Your task to perform on an android device: Open calendar and show me the fourth week of next month Image 0: 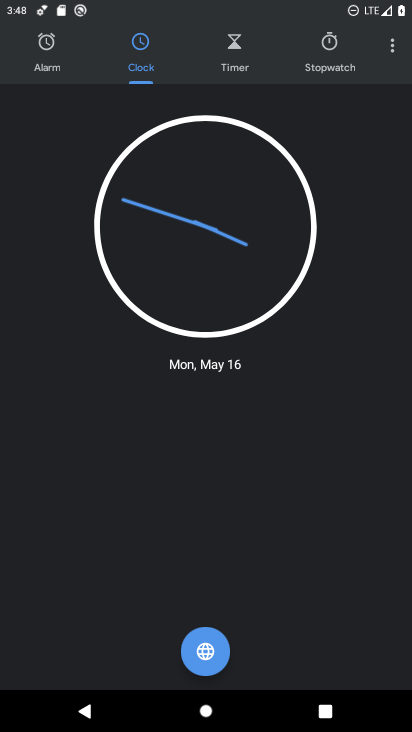
Step 0: press home button
Your task to perform on an android device: Open calendar and show me the fourth week of next month Image 1: 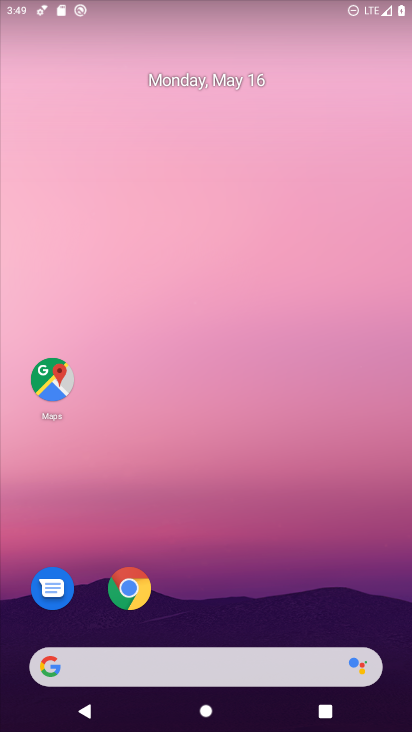
Step 1: drag from (242, 628) to (238, 13)
Your task to perform on an android device: Open calendar and show me the fourth week of next month Image 2: 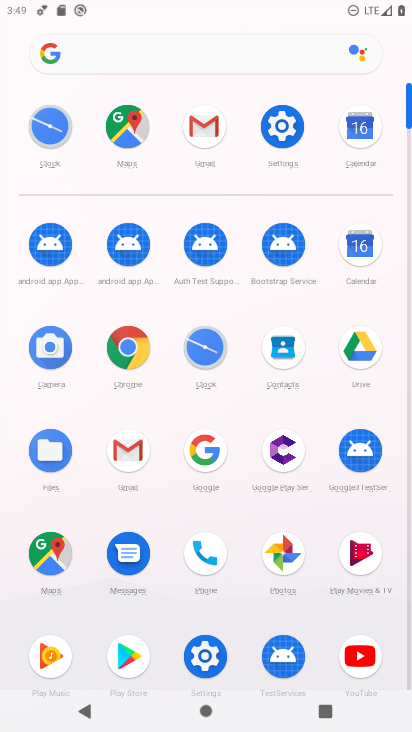
Step 2: click (365, 128)
Your task to perform on an android device: Open calendar and show me the fourth week of next month Image 3: 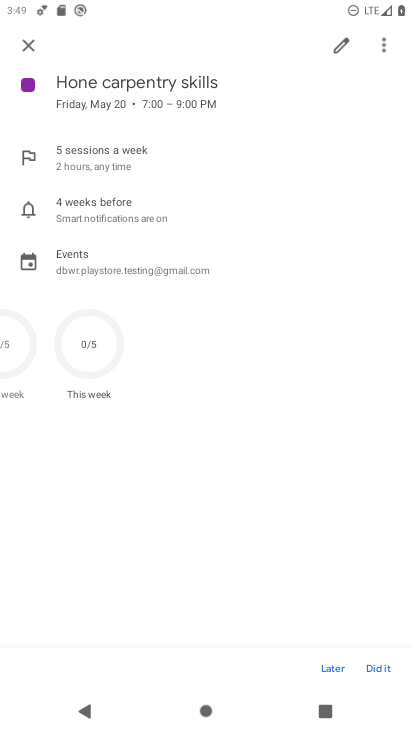
Step 3: click (32, 48)
Your task to perform on an android device: Open calendar and show me the fourth week of next month Image 4: 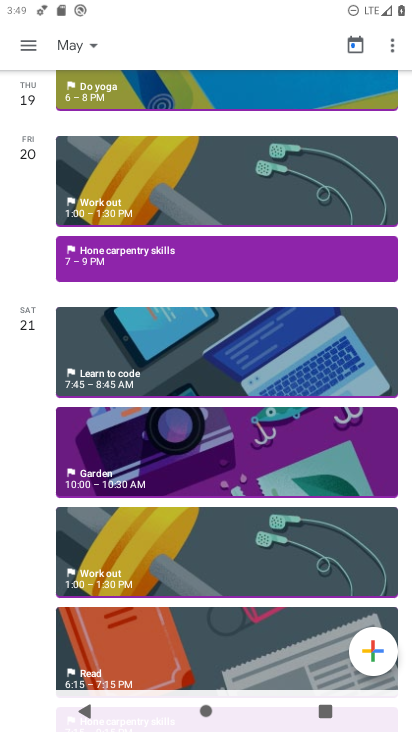
Step 4: click (99, 48)
Your task to perform on an android device: Open calendar and show me the fourth week of next month Image 5: 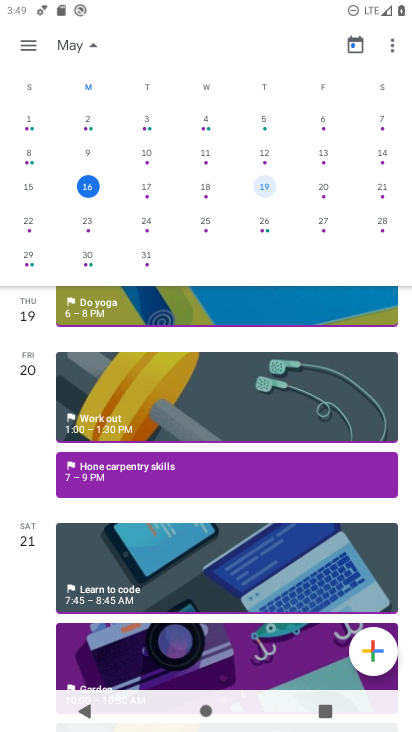
Step 5: drag from (330, 200) to (5, 200)
Your task to perform on an android device: Open calendar and show me the fourth week of next month Image 6: 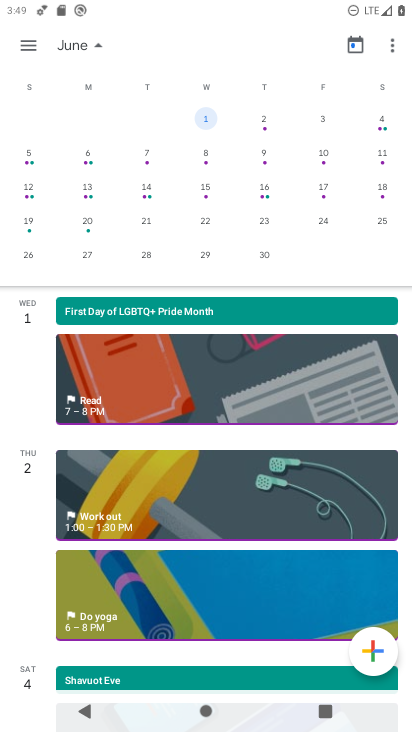
Step 6: click (29, 47)
Your task to perform on an android device: Open calendar and show me the fourth week of next month Image 7: 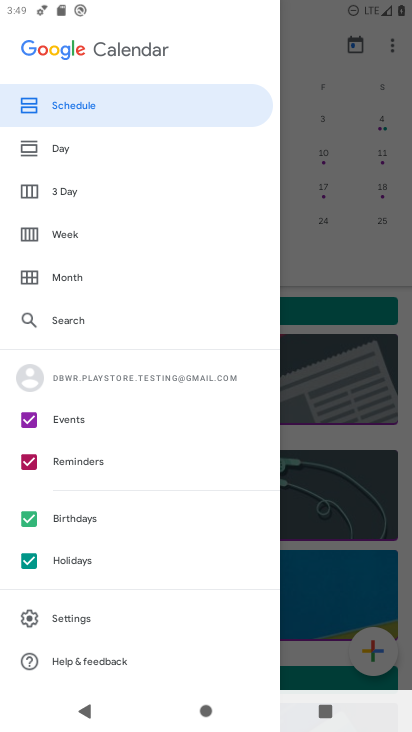
Step 7: click (67, 232)
Your task to perform on an android device: Open calendar and show me the fourth week of next month Image 8: 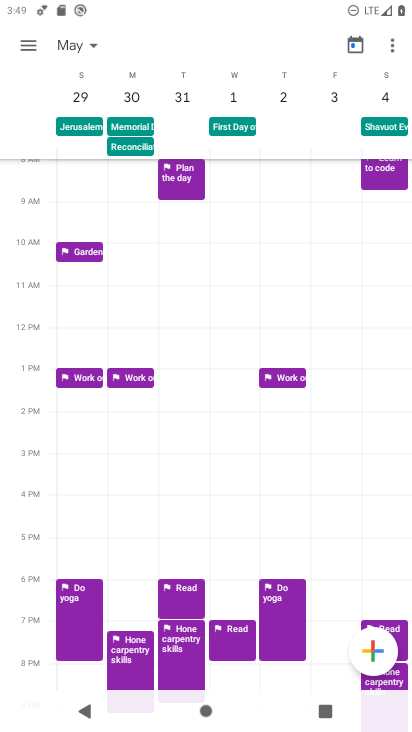
Step 8: task complete